Your task to perform on an android device: Open Google Maps Image 0: 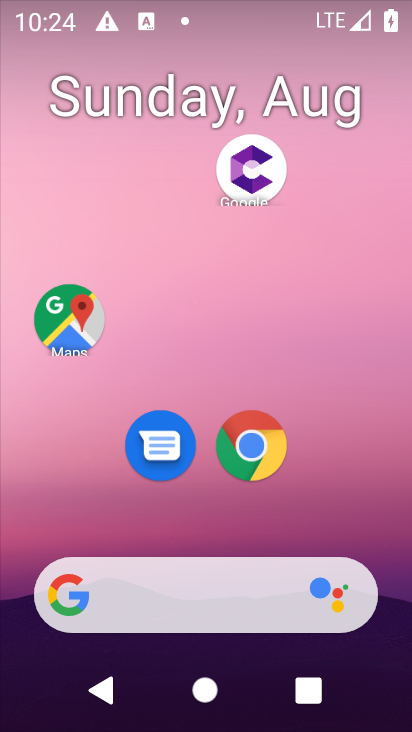
Step 0: press home button
Your task to perform on an android device: Open Google Maps Image 1: 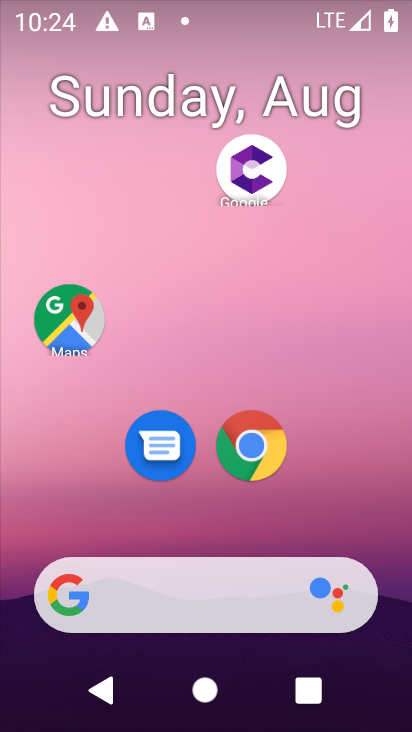
Step 1: click (65, 316)
Your task to perform on an android device: Open Google Maps Image 2: 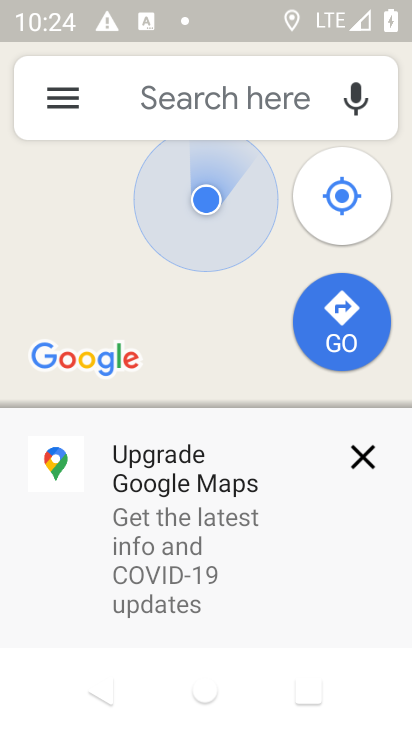
Step 2: click (353, 456)
Your task to perform on an android device: Open Google Maps Image 3: 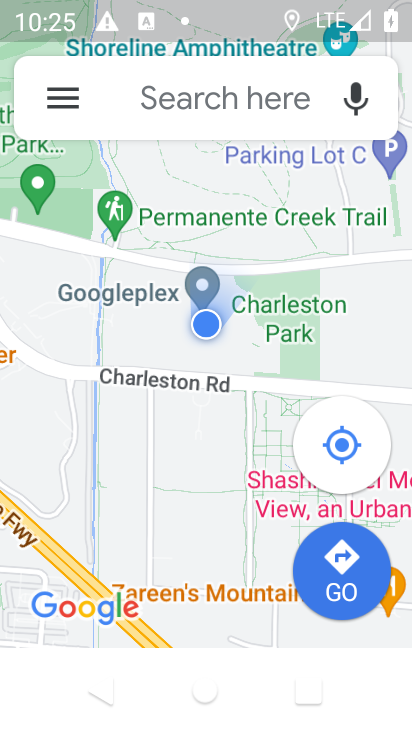
Step 3: task complete